Your task to perform on an android device: Play the latest video from the BBC Image 0: 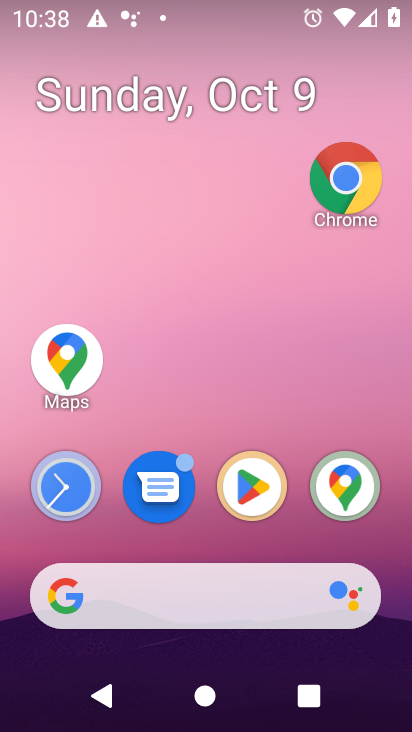
Step 0: drag from (234, 614) to (245, 328)
Your task to perform on an android device: Play the latest video from the BBC Image 1: 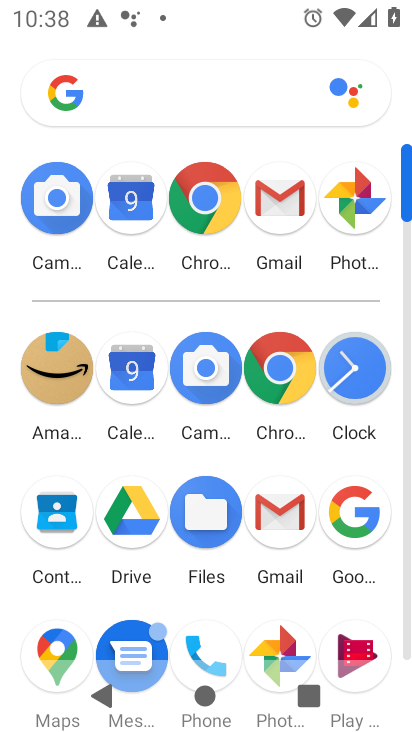
Step 1: drag from (302, 590) to (302, 542)
Your task to perform on an android device: Play the latest video from the BBC Image 2: 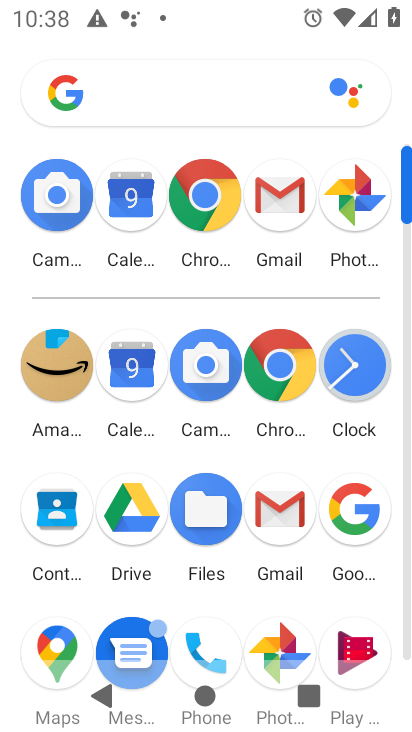
Step 2: drag from (307, 570) to (327, 56)
Your task to perform on an android device: Play the latest video from the BBC Image 3: 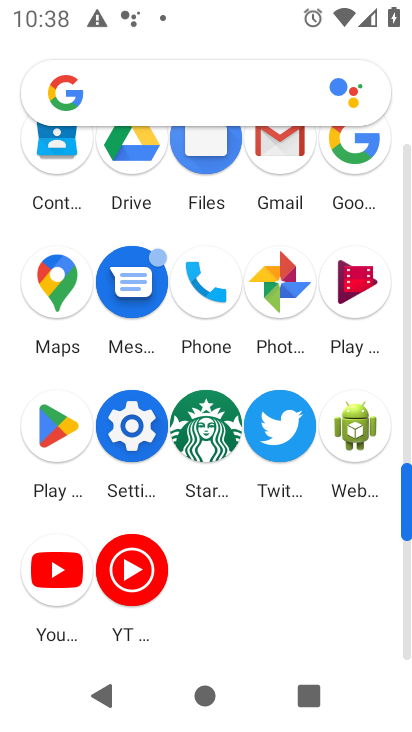
Step 3: click (49, 572)
Your task to perform on an android device: Play the latest video from the BBC Image 4: 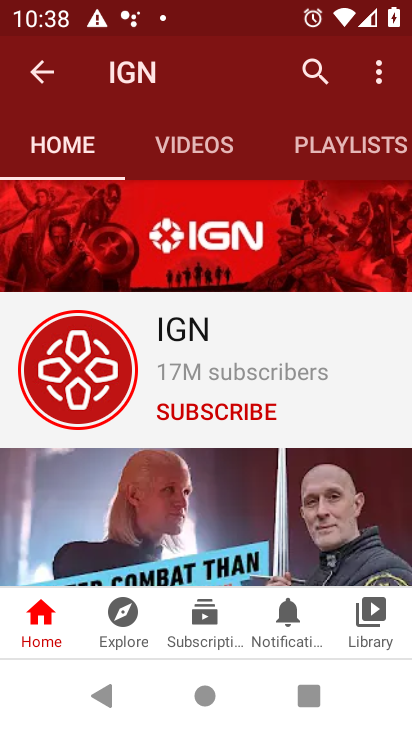
Step 4: click (49, 67)
Your task to perform on an android device: Play the latest video from the BBC Image 5: 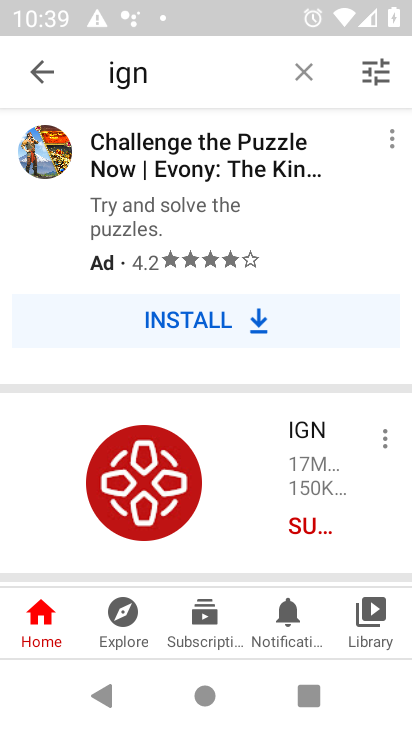
Step 5: click (49, 67)
Your task to perform on an android device: Play the latest video from the BBC Image 6: 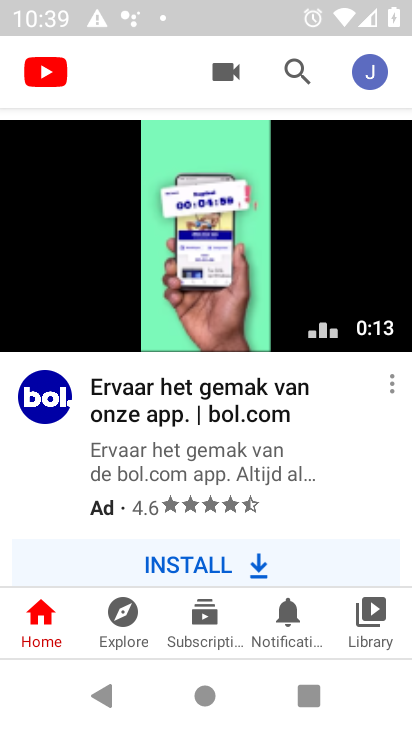
Step 6: click (295, 77)
Your task to perform on an android device: Play the latest video from the BBC Image 7: 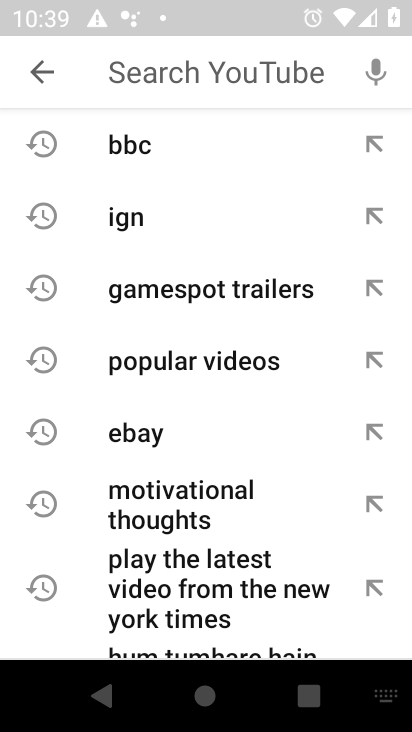
Step 7: click (236, 141)
Your task to perform on an android device: Play the latest video from the BBC Image 8: 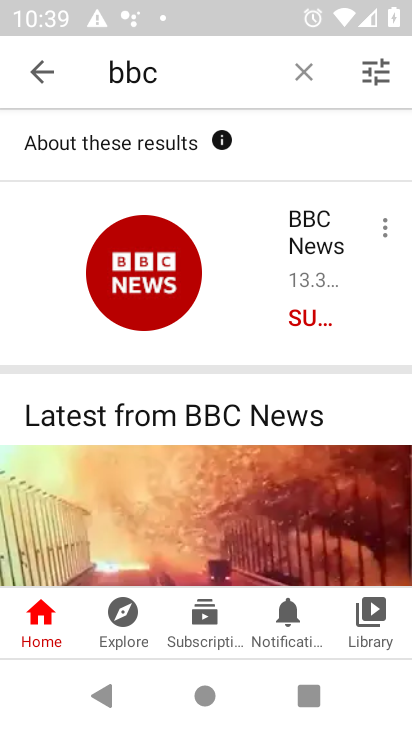
Step 8: click (167, 262)
Your task to perform on an android device: Play the latest video from the BBC Image 9: 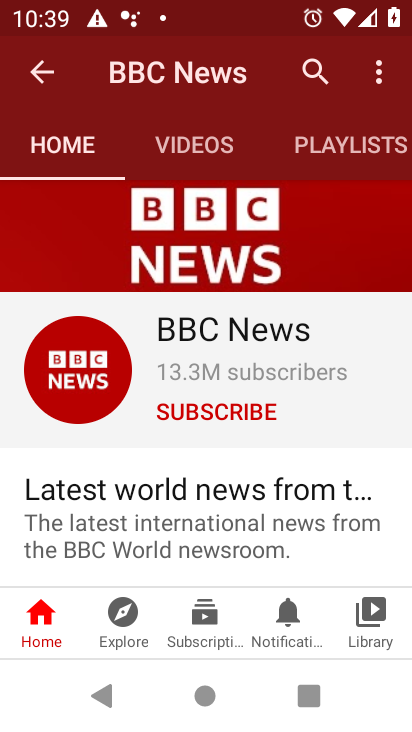
Step 9: task complete